Your task to perform on an android device: What's on my calendar today? Image 0: 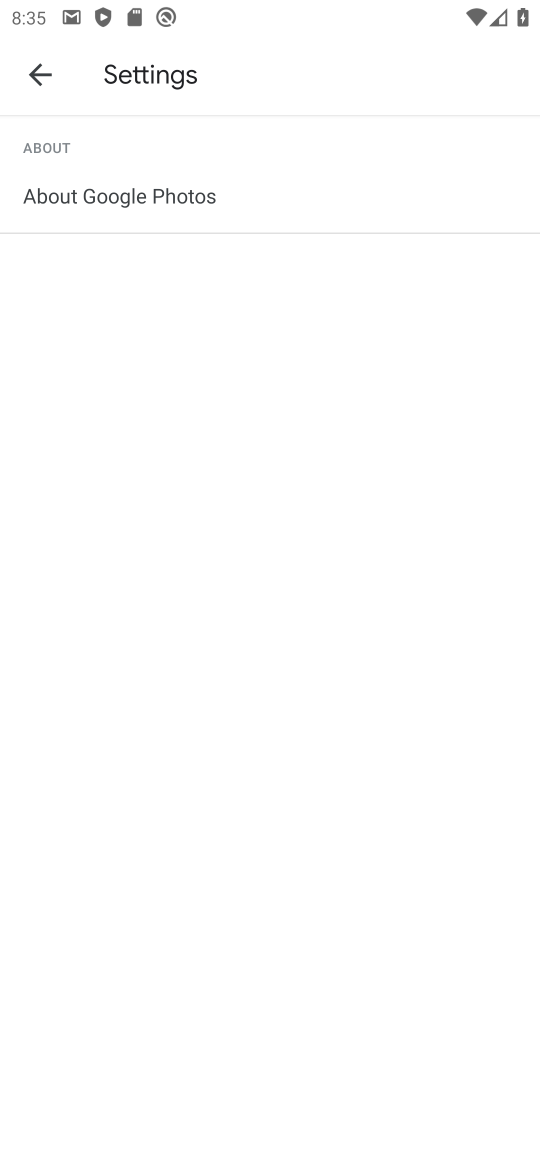
Step 0: click (365, 478)
Your task to perform on an android device: What's on my calendar today? Image 1: 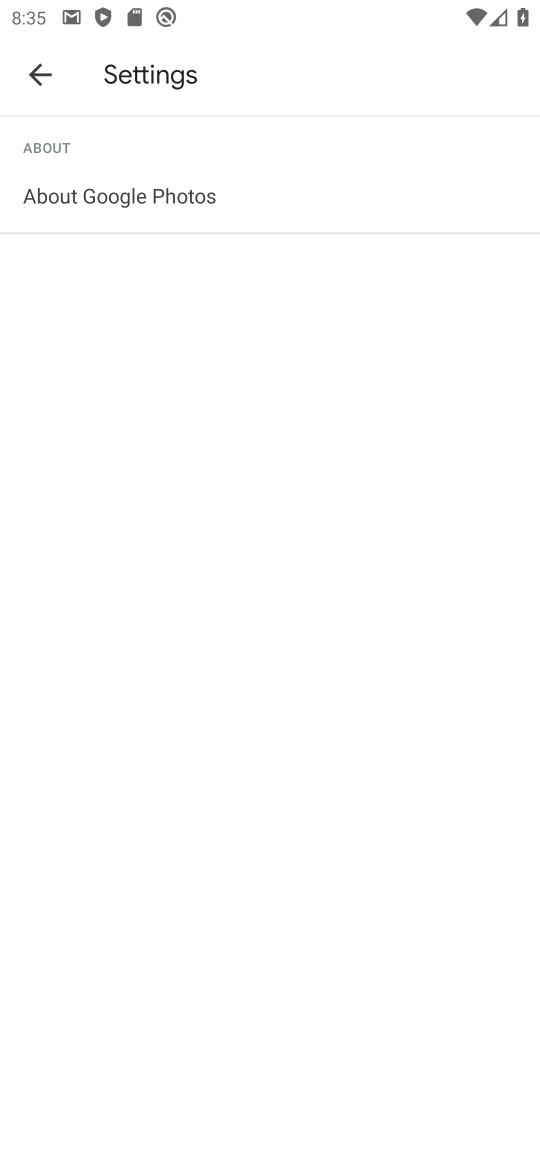
Step 1: press home button
Your task to perform on an android device: What's on my calendar today? Image 2: 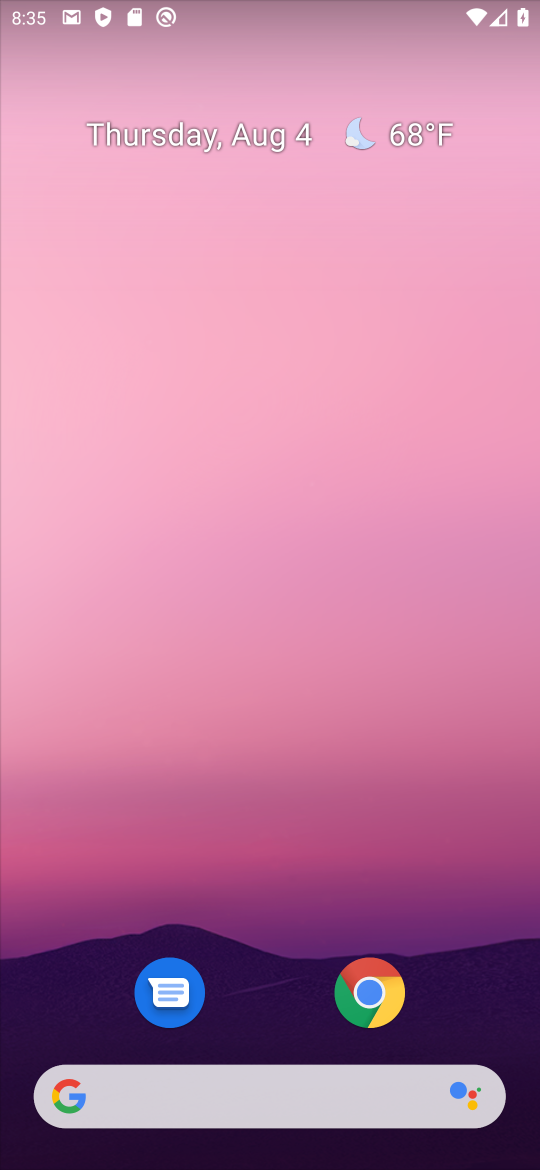
Step 2: drag from (85, 943) to (522, 203)
Your task to perform on an android device: What's on my calendar today? Image 3: 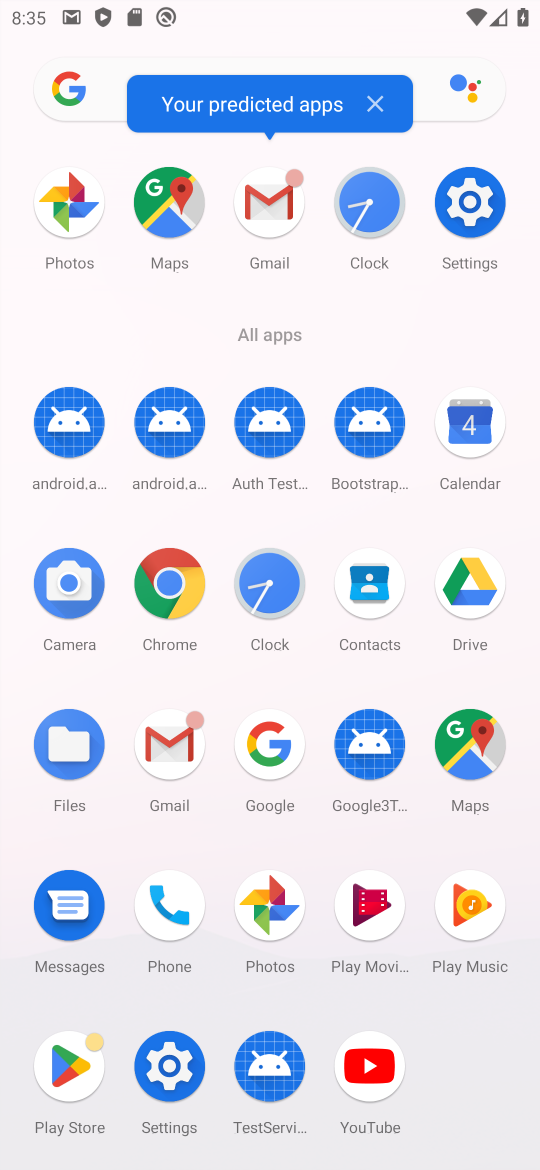
Step 3: click (459, 438)
Your task to perform on an android device: What's on my calendar today? Image 4: 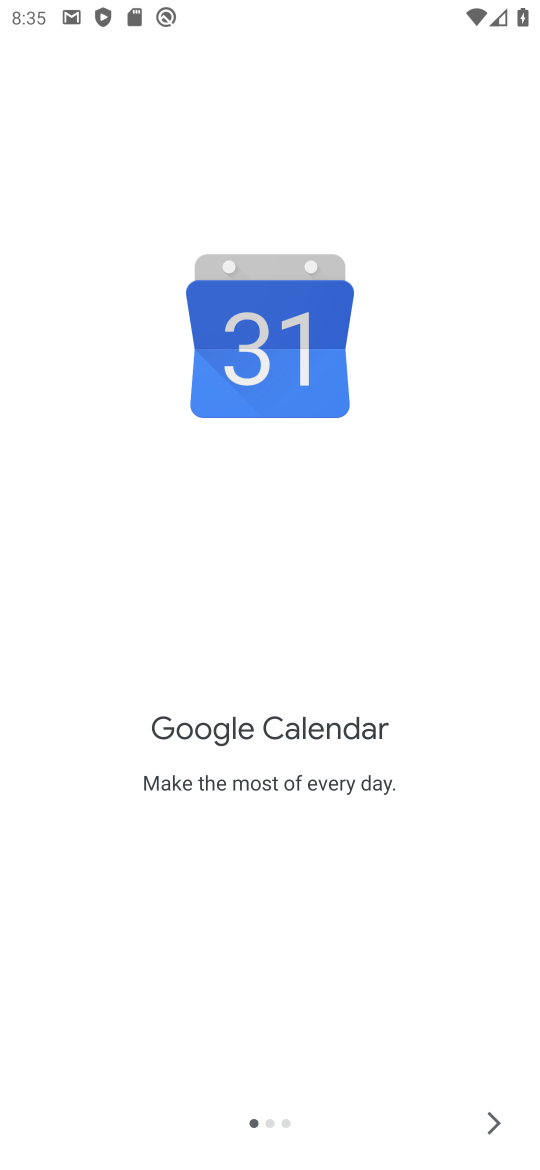
Step 4: click (501, 1127)
Your task to perform on an android device: What's on my calendar today? Image 5: 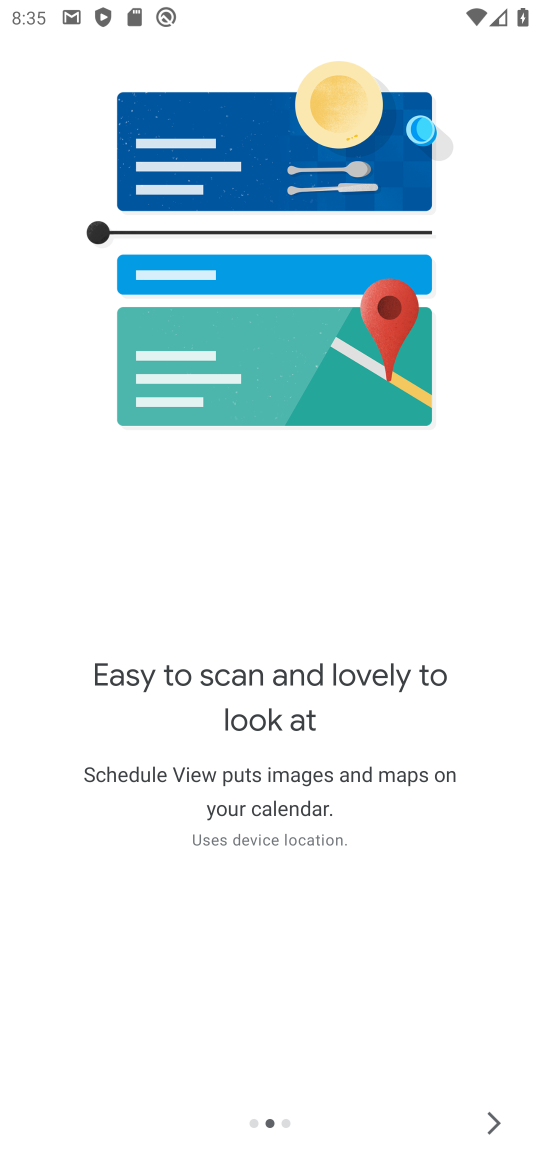
Step 5: click (501, 1127)
Your task to perform on an android device: What's on my calendar today? Image 6: 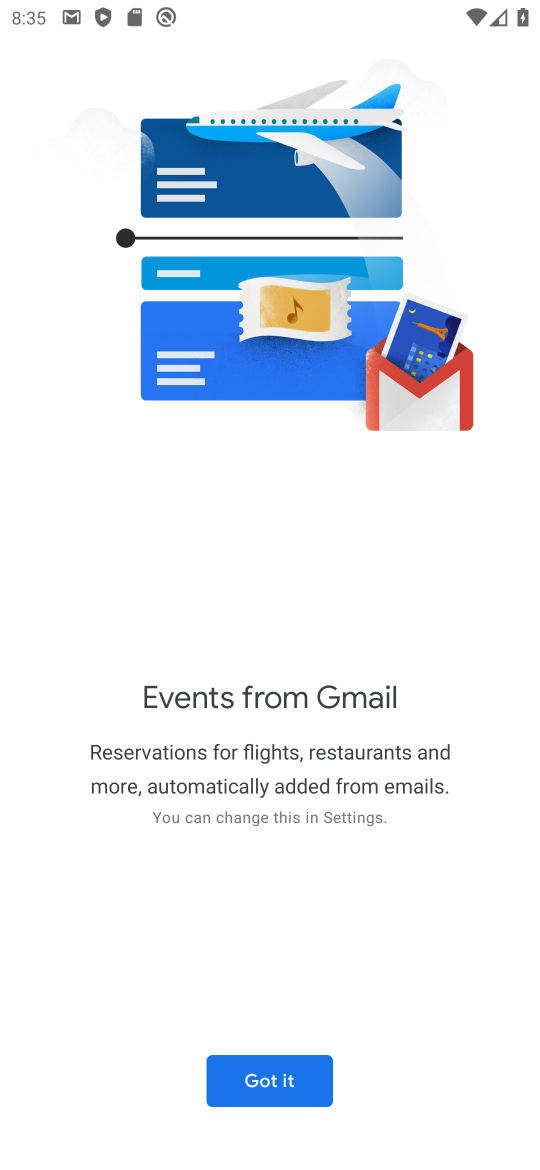
Step 6: click (271, 1093)
Your task to perform on an android device: What's on my calendar today? Image 7: 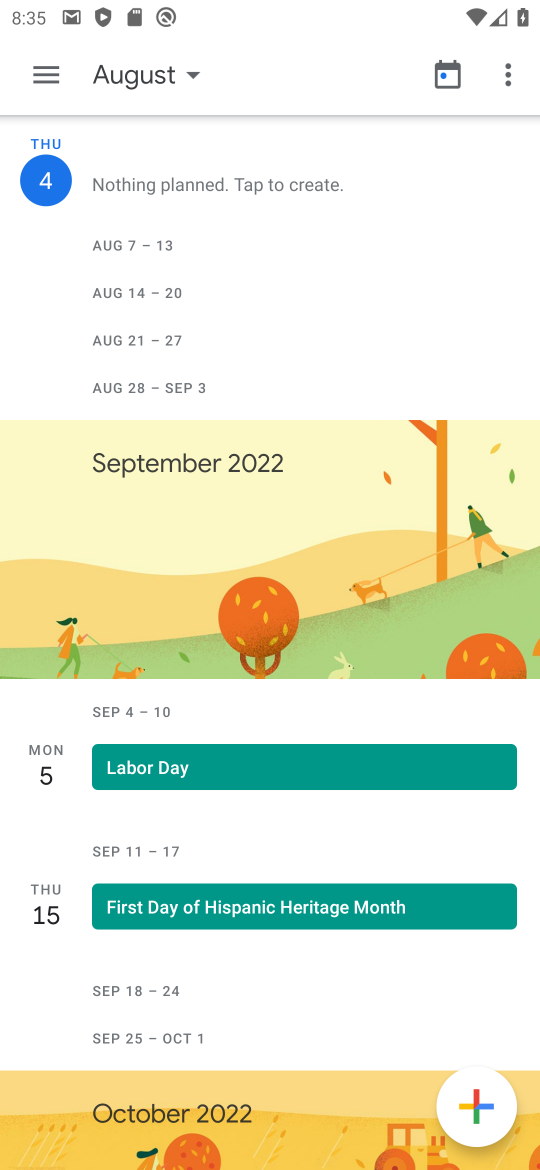
Step 7: click (140, 74)
Your task to perform on an android device: What's on my calendar today? Image 8: 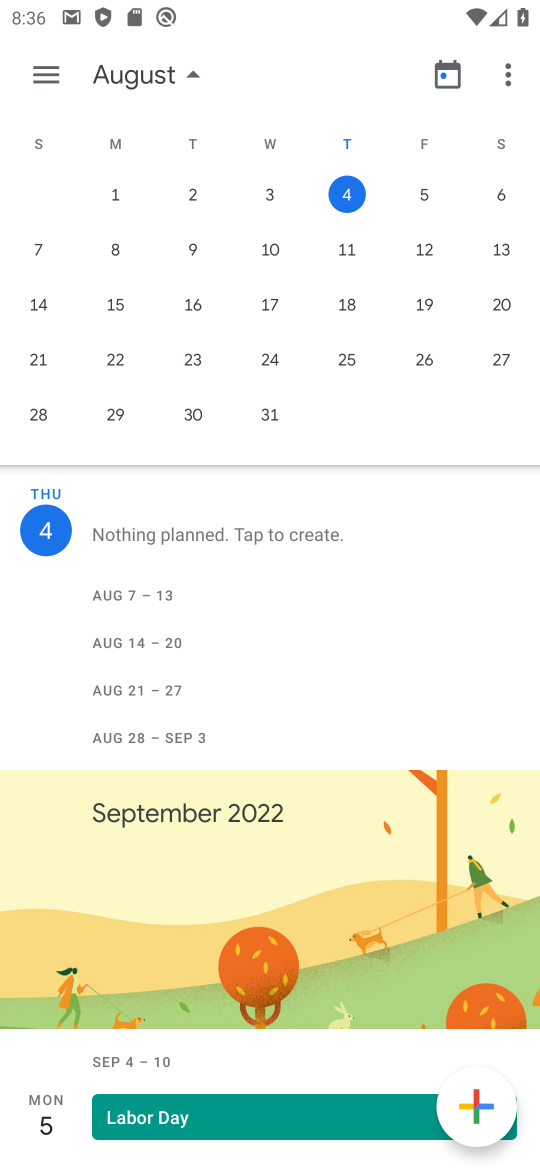
Step 8: task complete